Your task to perform on an android device: check the backup settings in the google photos Image 0: 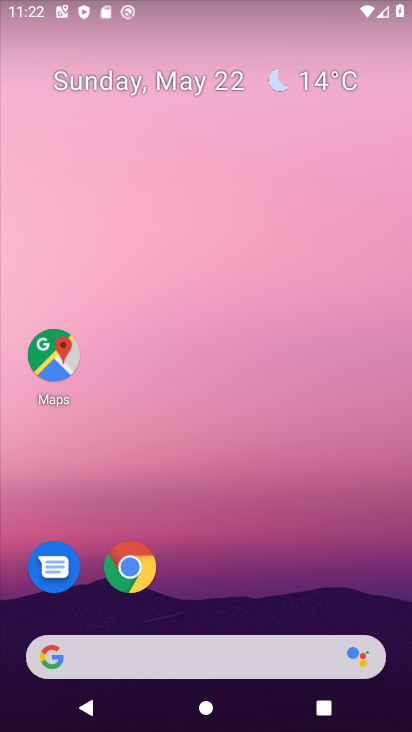
Step 0: drag from (204, 610) to (248, 201)
Your task to perform on an android device: check the backup settings in the google photos Image 1: 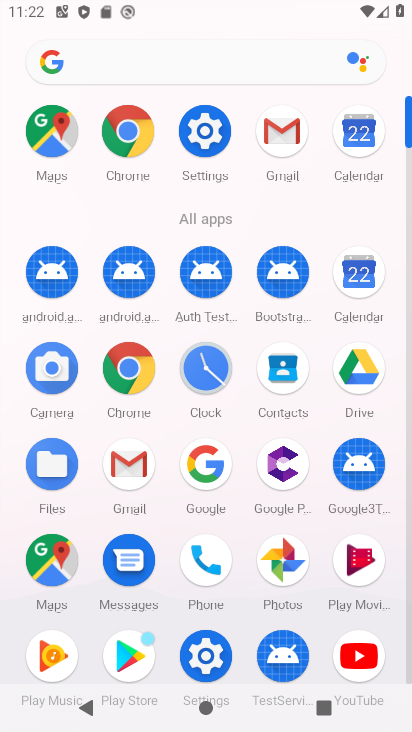
Step 1: click (283, 553)
Your task to perform on an android device: check the backup settings in the google photos Image 2: 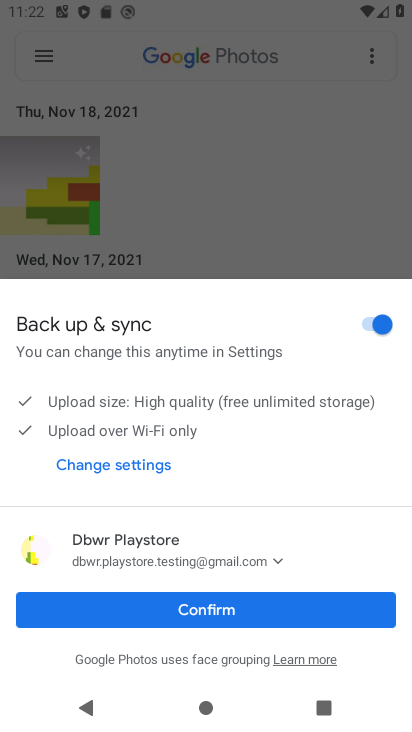
Step 2: click (267, 621)
Your task to perform on an android device: check the backup settings in the google photos Image 3: 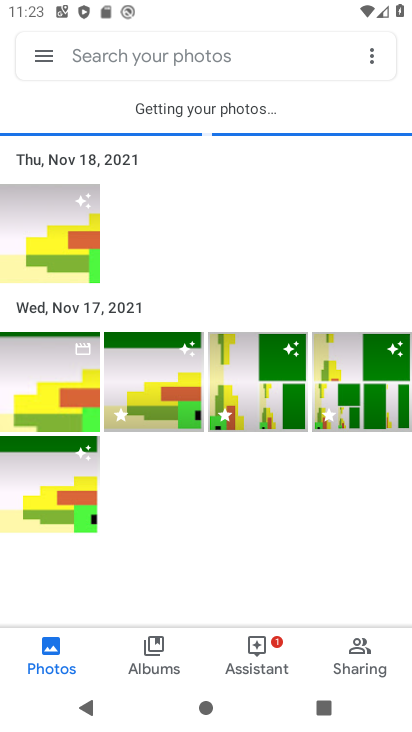
Step 3: click (40, 58)
Your task to perform on an android device: check the backup settings in the google photos Image 4: 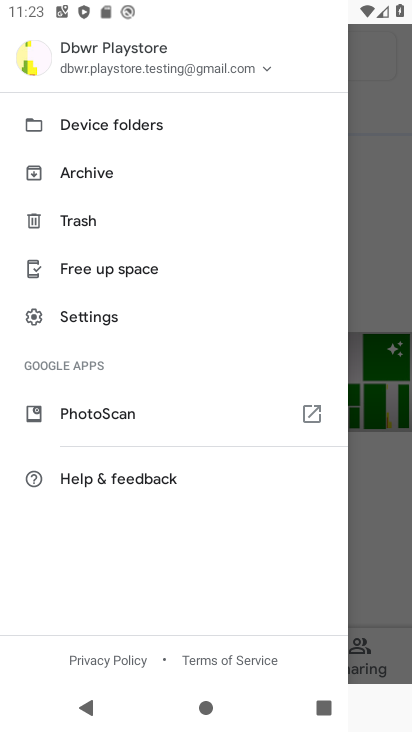
Step 4: click (93, 306)
Your task to perform on an android device: check the backup settings in the google photos Image 5: 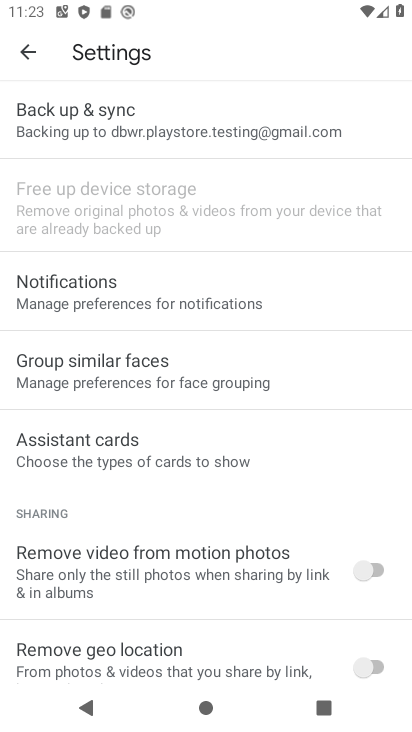
Step 5: click (149, 144)
Your task to perform on an android device: check the backup settings in the google photos Image 6: 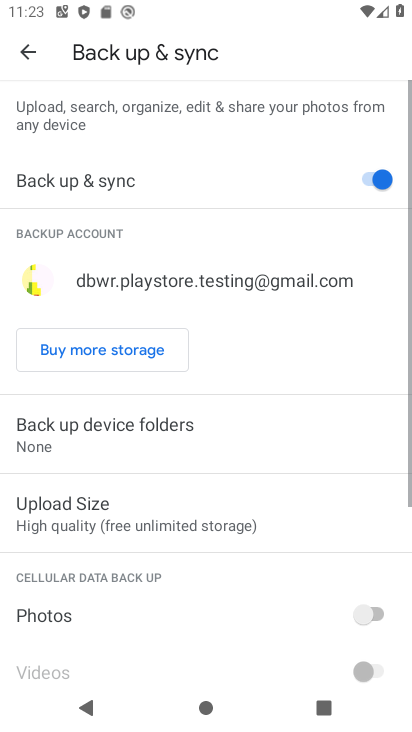
Step 6: task complete